Your task to perform on an android device: Go to Reddit.com Image 0: 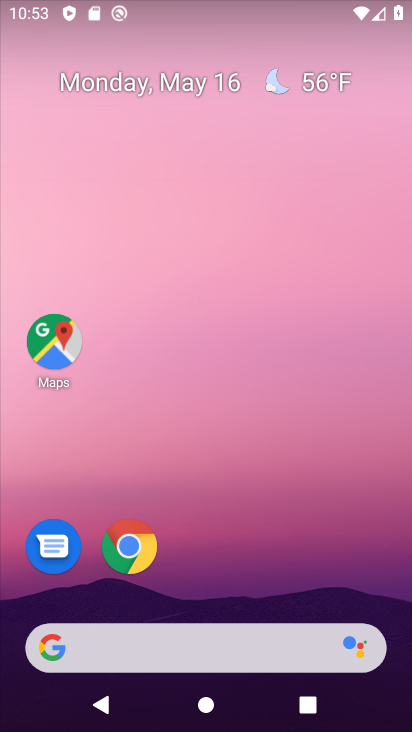
Step 0: drag from (303, 523) to (323, 64)
Your task to perform on an android device: Go to Reddit.com Image 1: 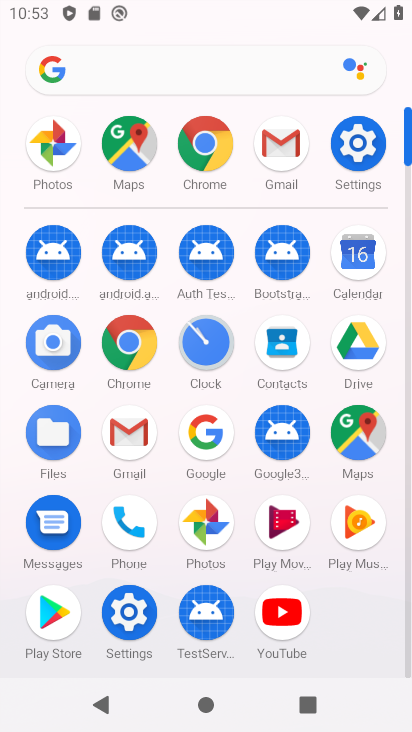
Step 1: click (222, 150)
Your task to perform on an android device: Go to Reddit.com Image 2: 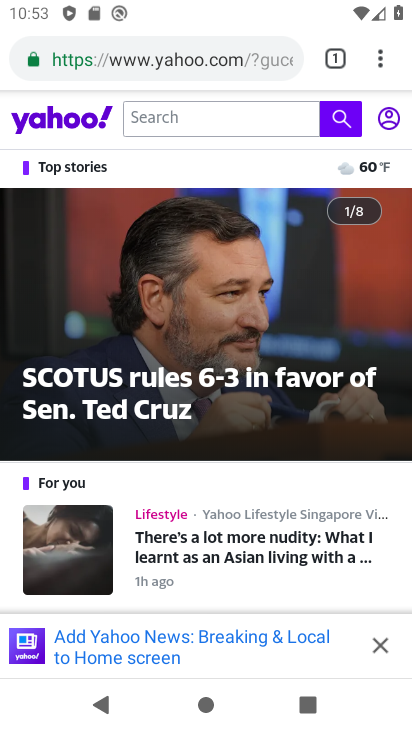
Step 2: click (172, 82)
Your task to perform on an android device: Go to Reddit.com Image 3: 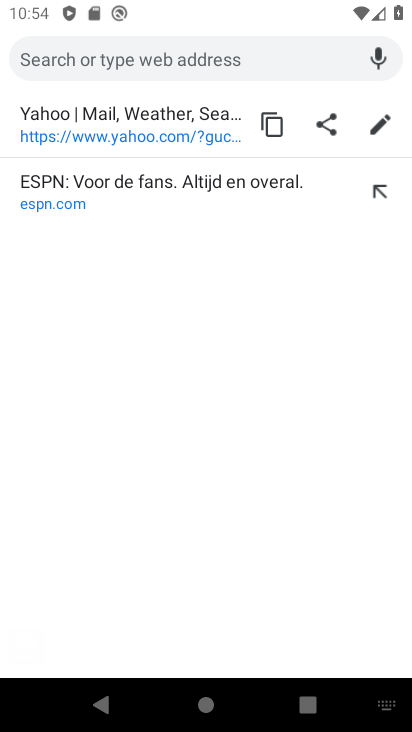
Step 3: type "reddit"
Your task to perform on an android device: Go to Reddit.com Image 4: 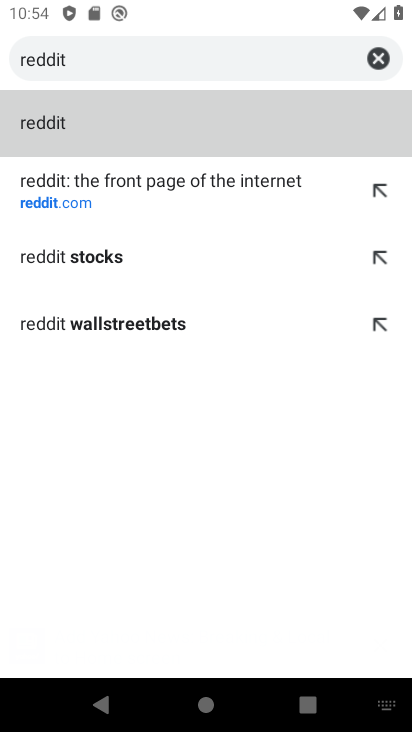
Step 4: click (85, 205)
Your task to perform on an android device: Go to Reddit.com Image 5: 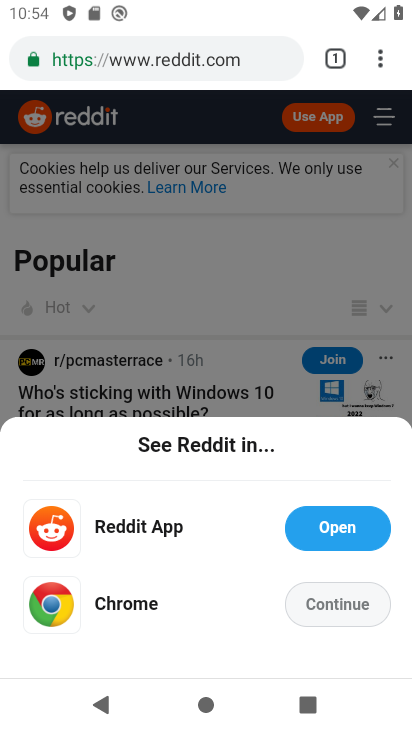
Step 5: task complete